Your task to perform on an android device: open wifi settings Image 0: 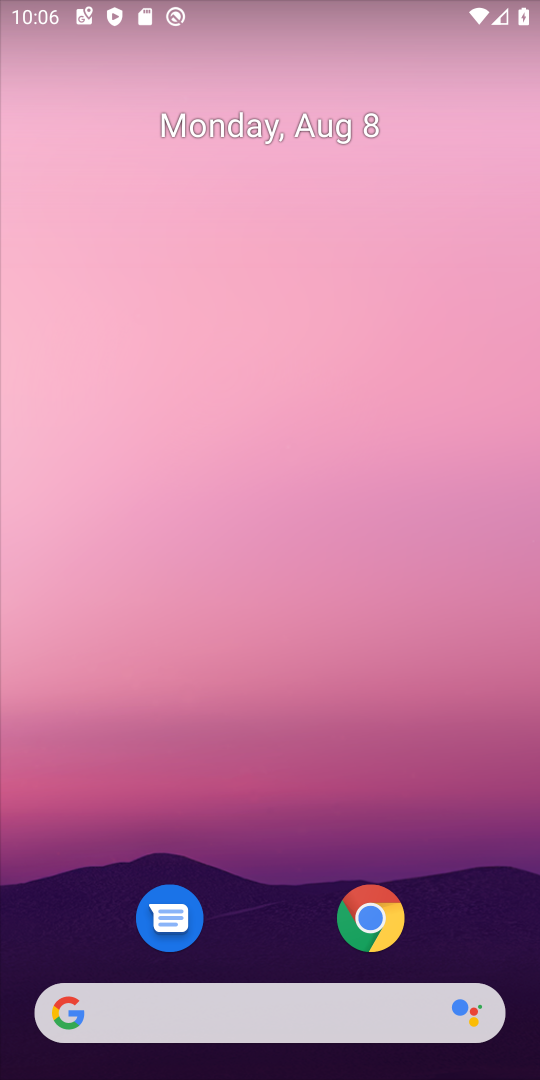
Step 0: drag from (313, 978) to (211, 62)
Your task to perform on an android device: open wifi settings Image 1: 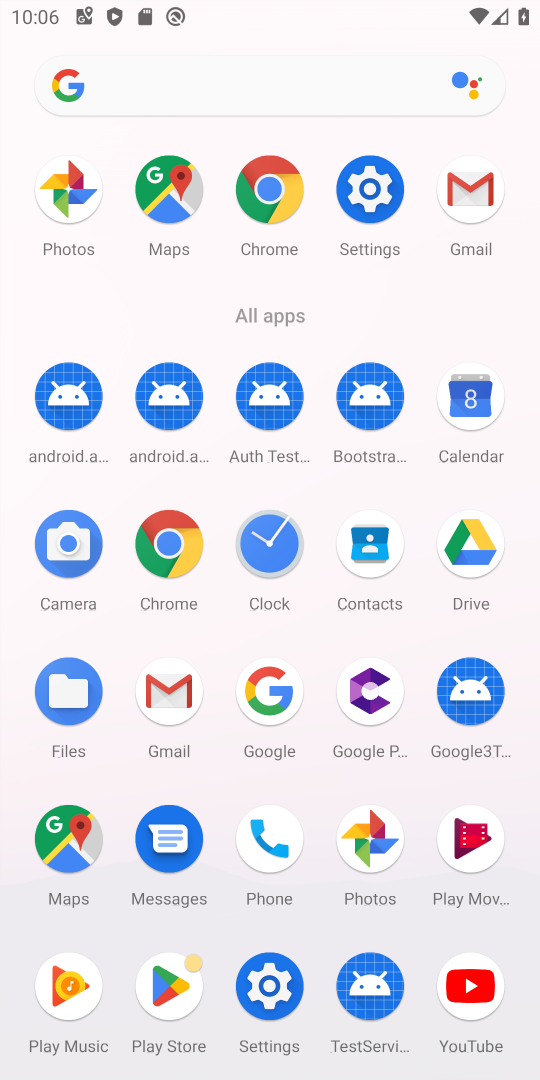
Step 1: click (284, 981)
Your task to perform on an android device: open wifi settings Image 2: 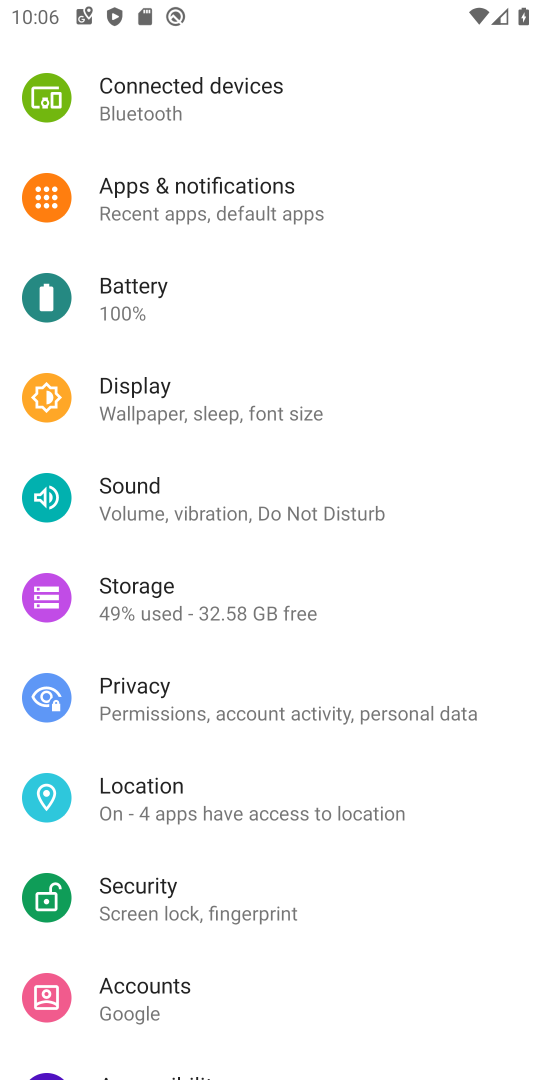
Step 2: drag from (243, 301) to (294, 997)
Your task to perform on an android device: open wifi settings Image 3: 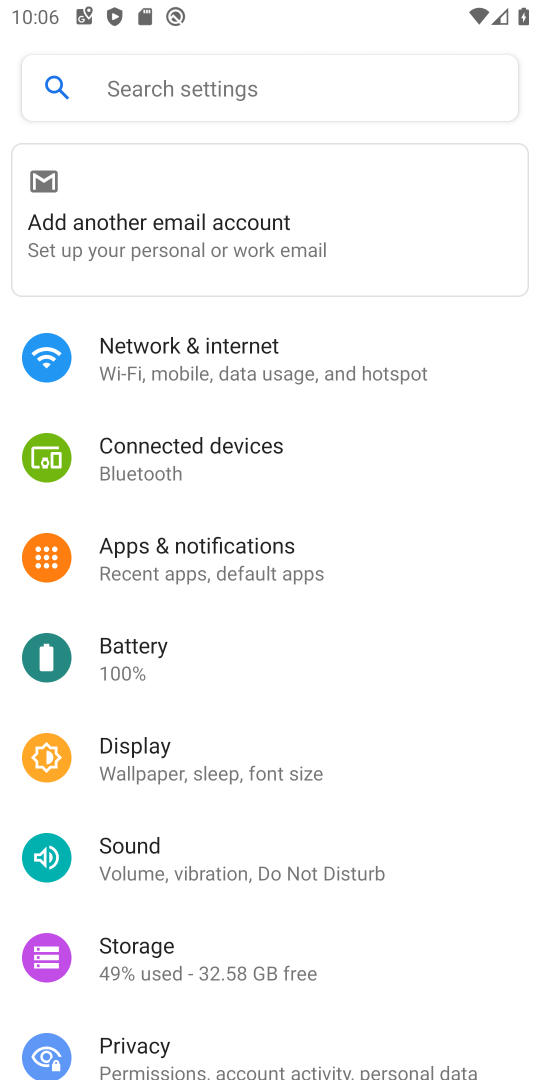
Step 3: click (179, 370)
Your task to perform on an android device: open wifi settings Image 4: 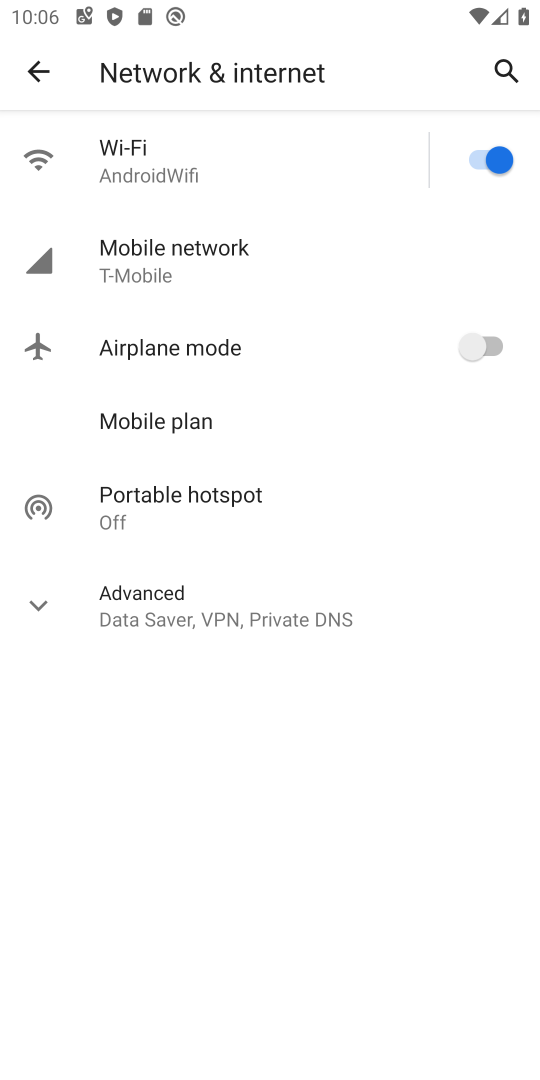
Step 4: click (169, 173)
Your task to perform on an android device: open wifi settings Image 5: 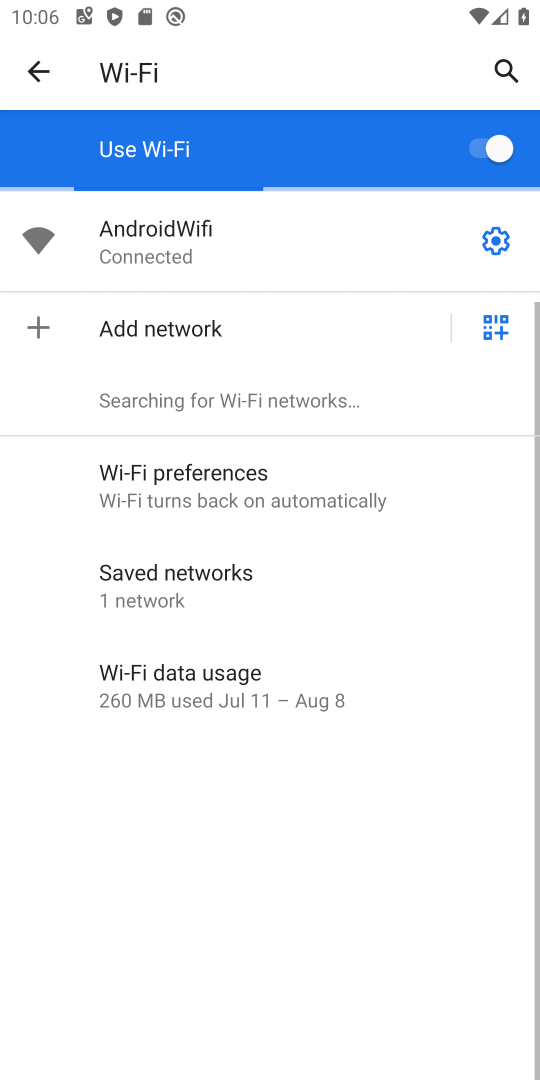
Step 5: task complete